Your task to perform on an android device: toggle wifi Image 0: 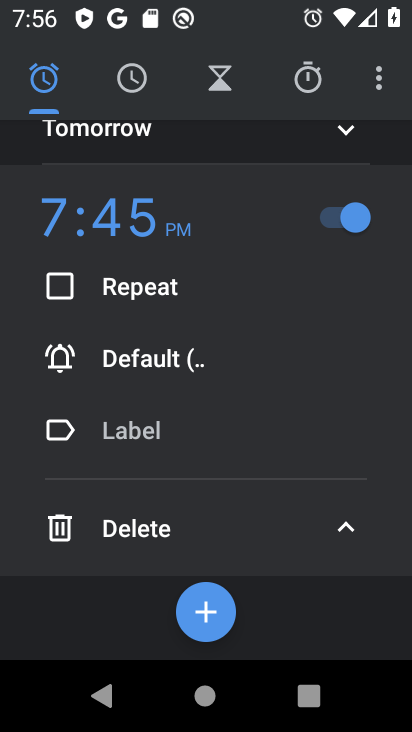
Step 0: press home button
Your task to perform on an android device: toggle wifi Image 1: 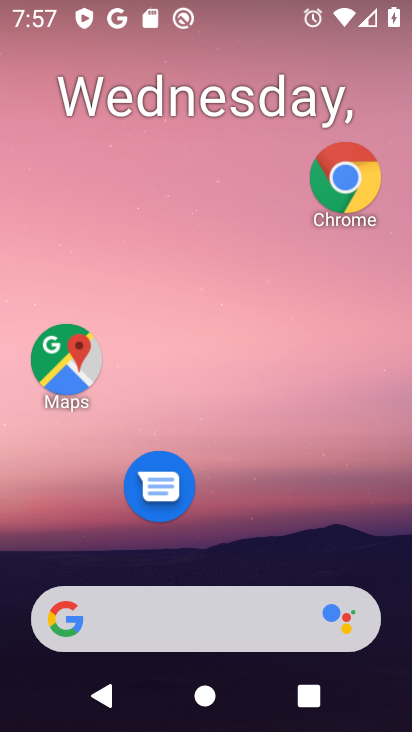
Step 1: drag from (209, 590) to (264, 63)
Your task to perform on an android device: toggle wifi Image 2: 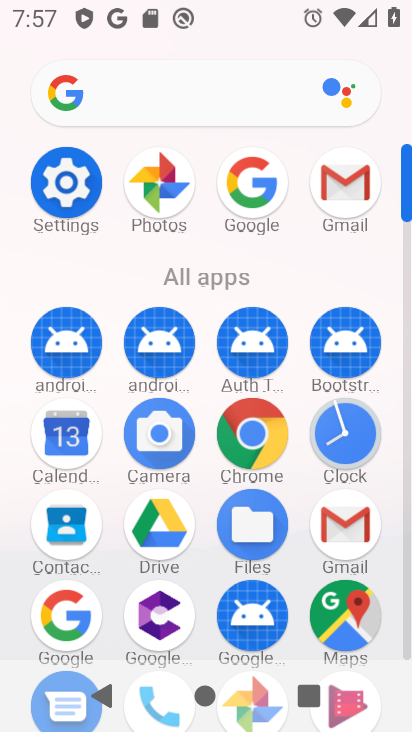
Step 2: click (81, 195)
Your task to perform on an android device: toggle wifi Image 3: 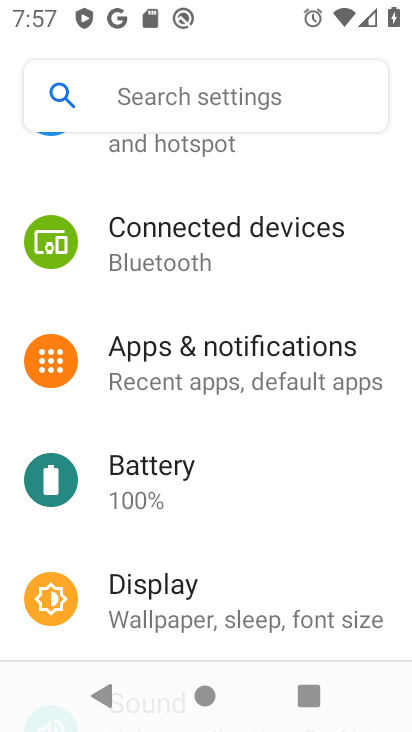
Step 3: drag from (166, 270) to (124, 586)
Your task to perform on an android device: toggle wifi Image 4: 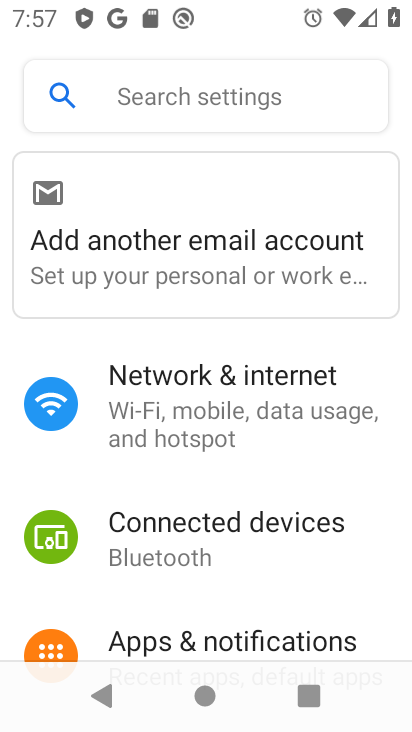
Step 4: click (180, 386)
Your task to perform on an android device: toggle wifi Image 5: 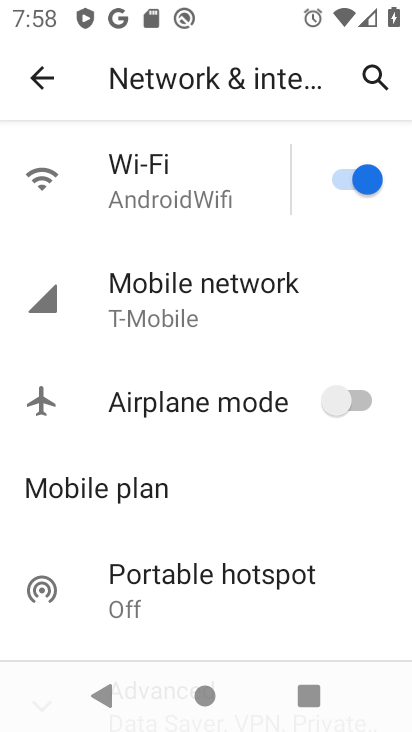
Step 5: click (338, 179)
Your task to perform on an android device: toggle wifi Image 6: 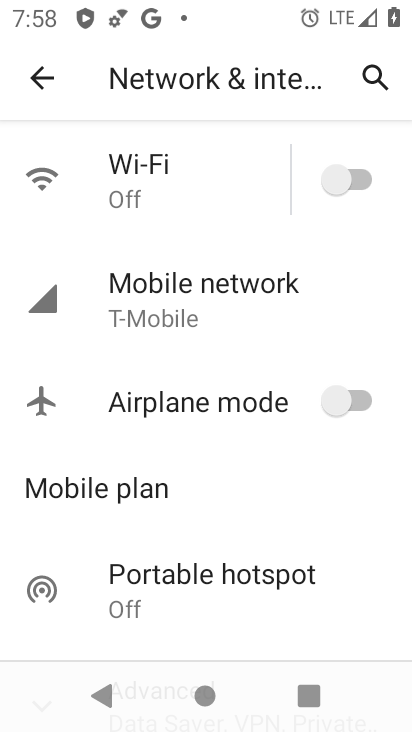
Step 6: task complete